Your task to perform on an android device: Open Youtube and go to "Your channel" Image 0: 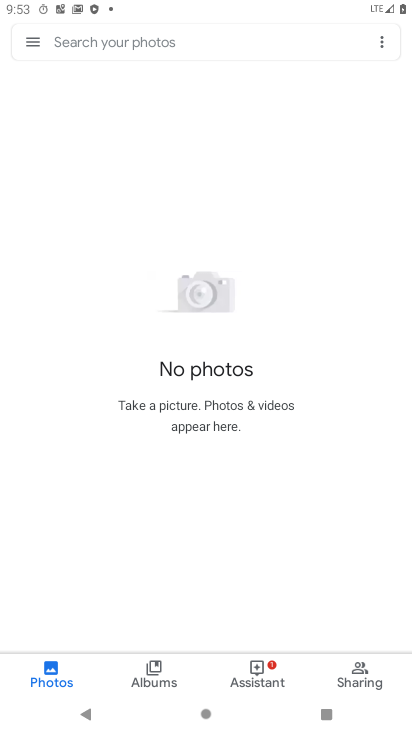
Step 0: press home button
Your task to perform on an android device: Open Youtube and go to "Your channel" Image 1: 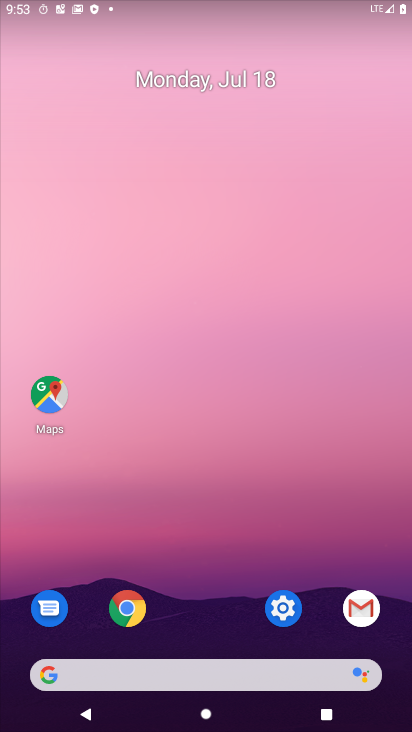
Step 1: drag from (245, 684) to (209, 119)
Your task to perform on an android device: Open Youtube and go to "Your channel" Image 2: 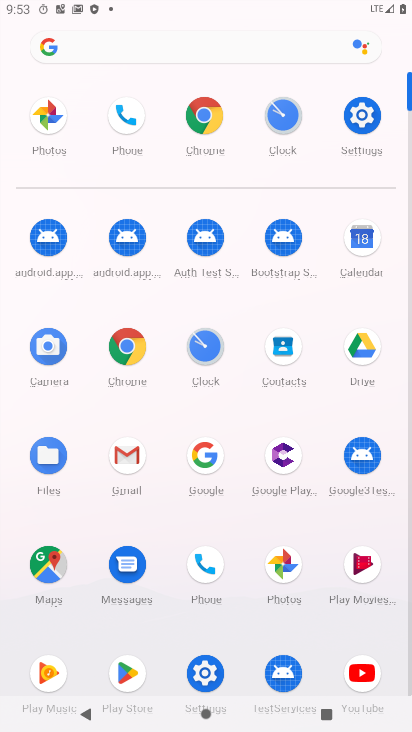
Step 2: click (345, 665)
Your task to perform on an android device: Open Youtube and go to "Your channel" Image 3: 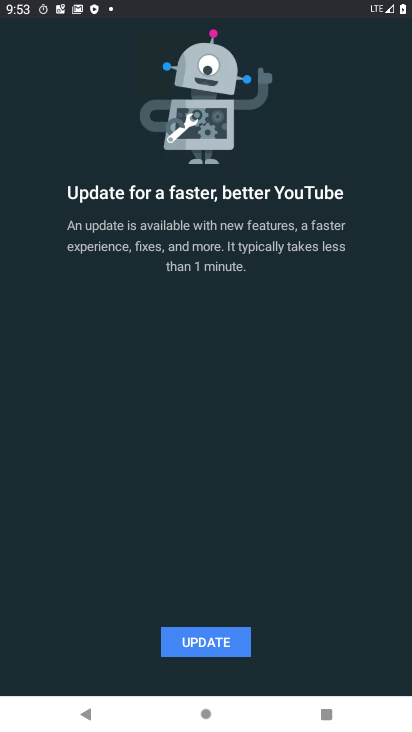
Step 3: click (187, 638)
Your task to perform on an android device: Open Youtube and go to "Your channel" Image 4: 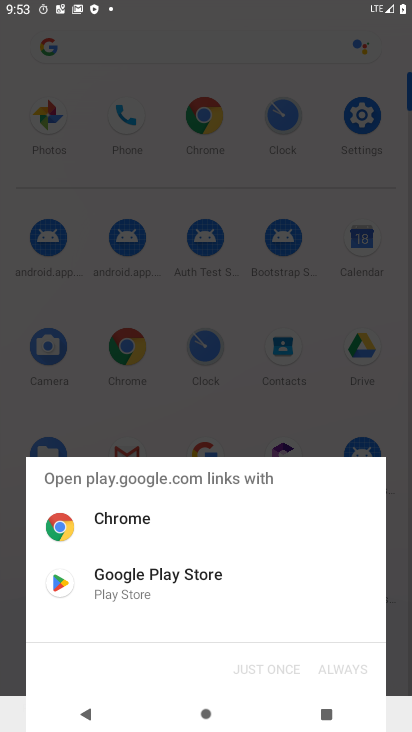
Step 4: click (149, 604)
Your task to perform on an android device: Open Youtube and go to "Your channel" Image 5: 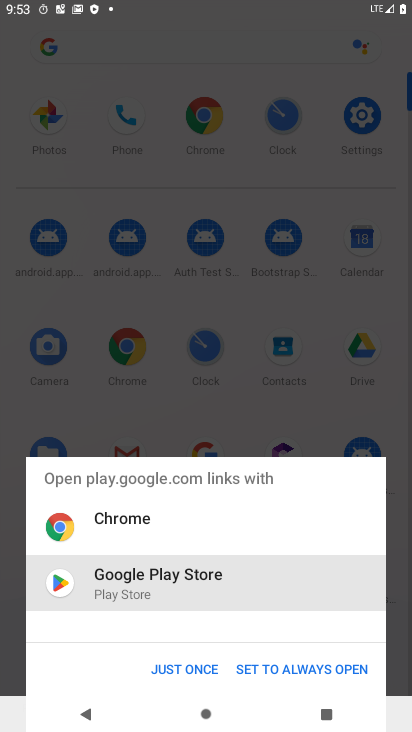
Step 5: click (187, 661)
Your task to perform on an android device: Open Youtube and go to "Your channel" Image 6: 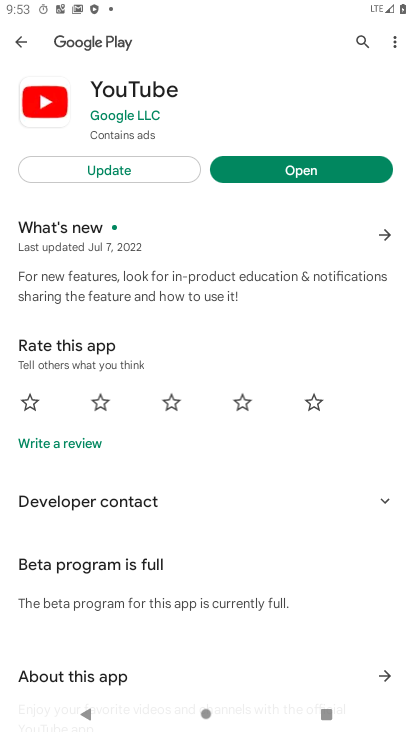
Step 6: click (87, 161)
Your task to perform on an android device: Open Youtube and go to "Your channel" Image 7: 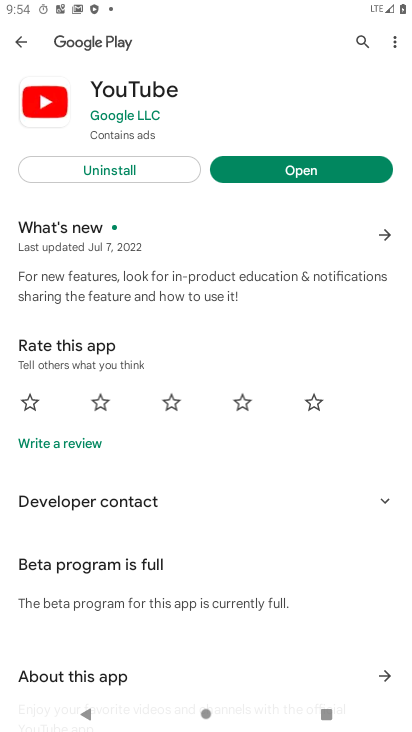
Step 7: click (270, 166)
Your task to perform on an android device: Open Youtube and go to "Your channel" Image 8: 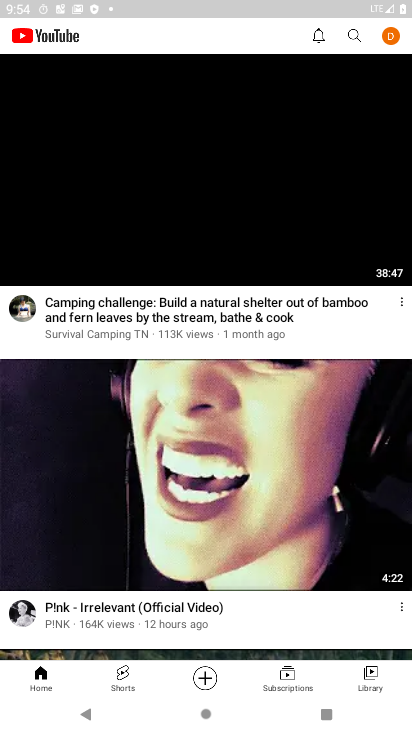
Step 8: click (385, 42)
Your task to perform on an android device: Open Youtube and go to "Your channel" Image 9: 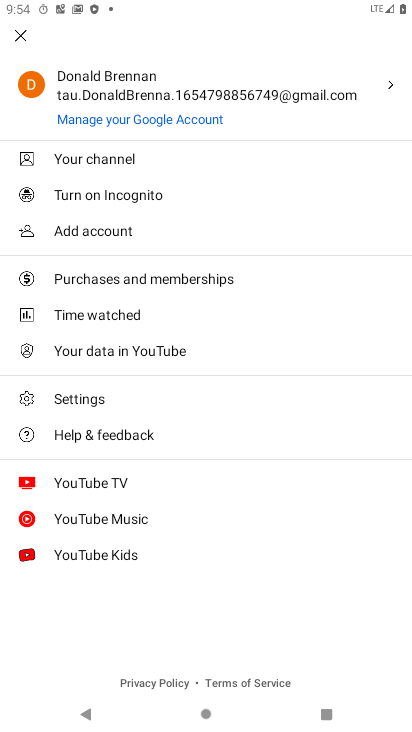
Step 9: click (124, 157)
Your task to perform on an android device: Open Youtube and go to "Your channel" Image 10: 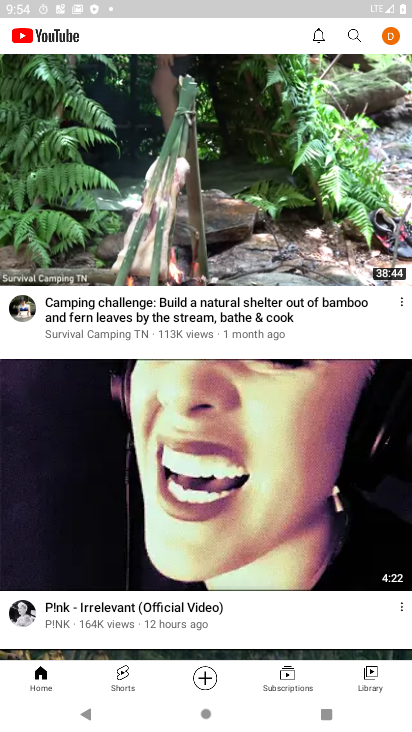
Step 10: click (382, 32)
Your task to perform on an android device: Open Youtube and go to "Your channel" Image 11: 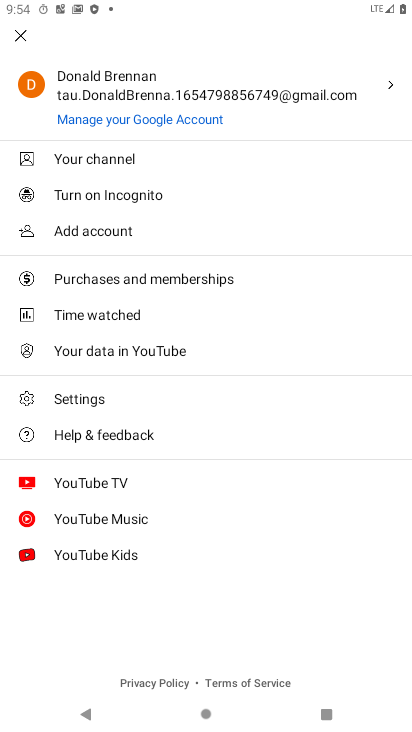
Step 11: click (105, 160)
Your task to perform on an android device: Open Youtube and go to "Your channel" Image 12: 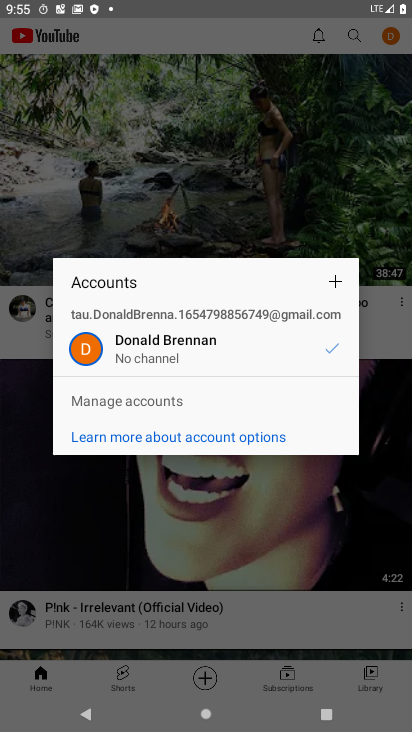
Step 12: click (165, 357)
Your task to perform on an android device: Open Youtube and go to "Your channel" Image 13: 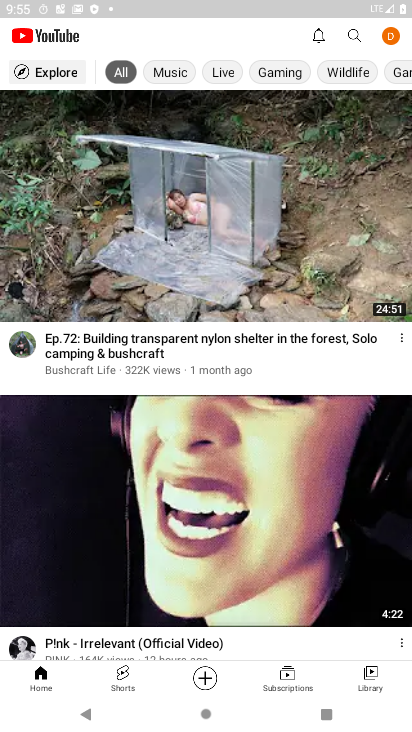
Step 13: task complete